Your task to perform on an android device: open chrome and create a bookmark for the current page Image 0: 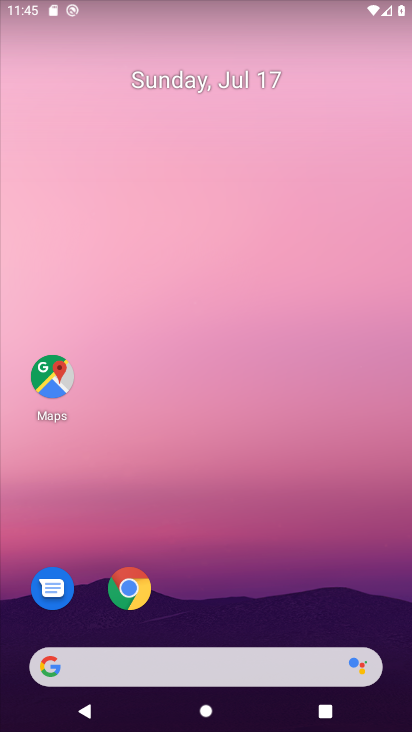
Step 0: drag from (250, 605) to (271, 54)
Your task to perform on an android device: open chrome and create a bookmark for the current page Image 1: 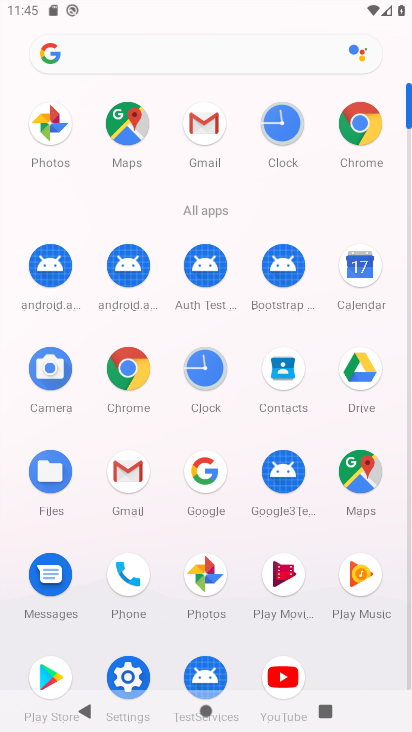
Step 1: click (359, 115)
Your task to perform on an android device: open chrome and create a bookmark for the current page Image 2: 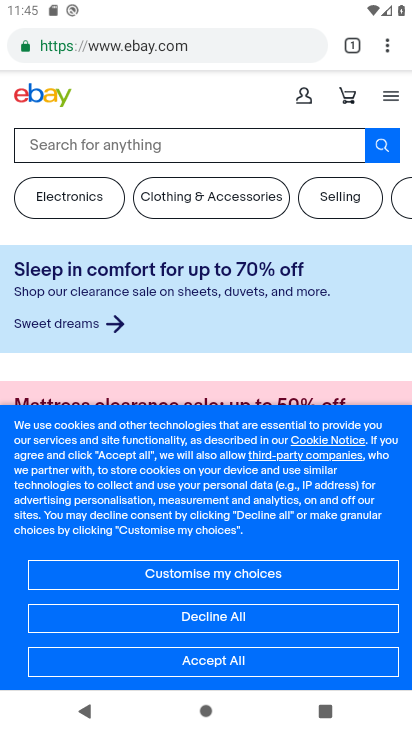
Step 2: click (392, 53)
Your task to perform on an android device: open chrome and create a bookmark for the current page Image 3: 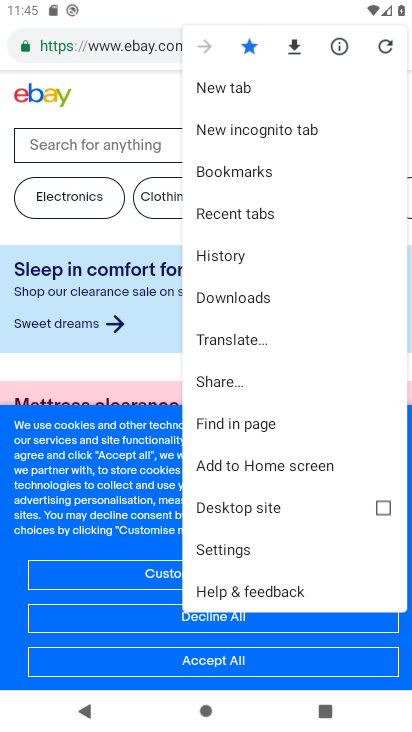
Step 3: task complete